Your task to perform on an android device: open app "Firefox Browser" Image 0: 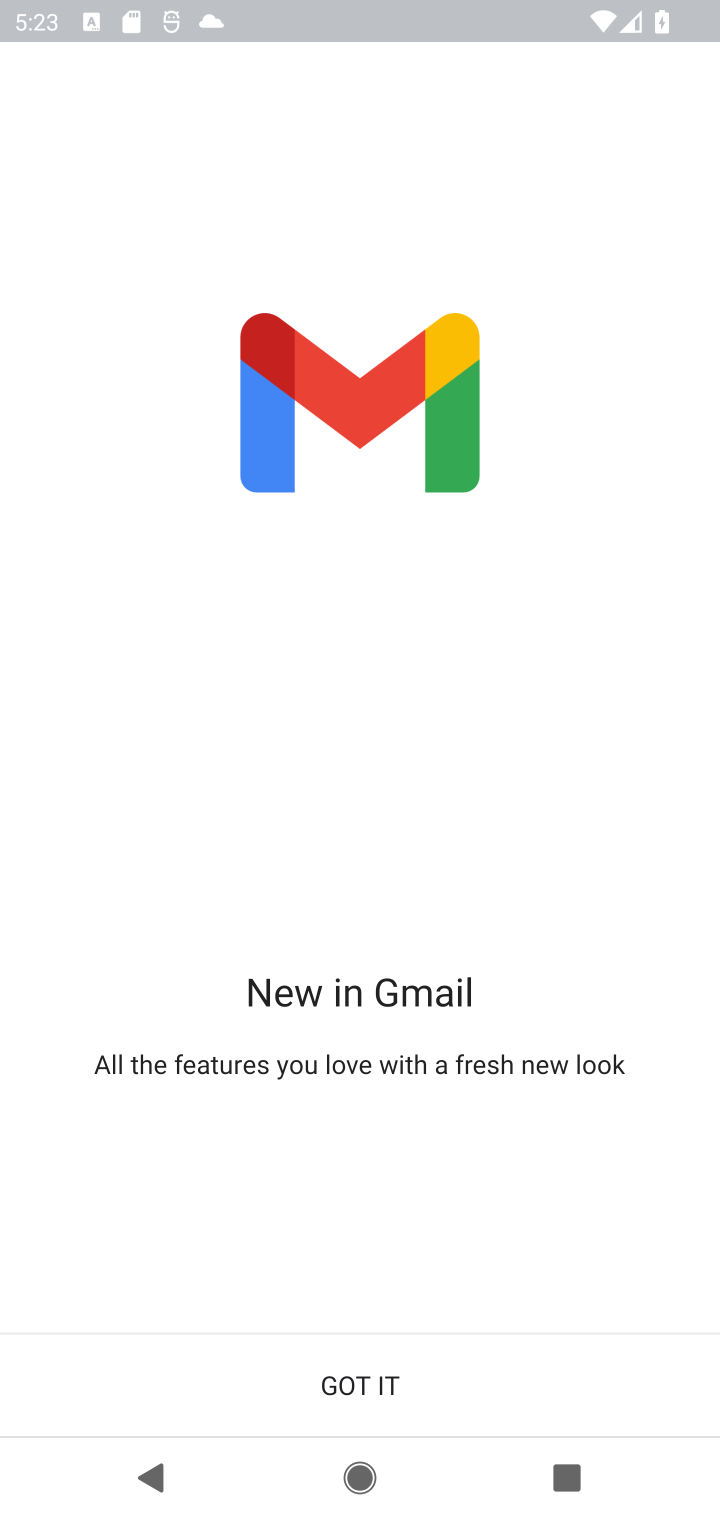
Step 0: press home button
Your task to perform on an android device: open app "Firefox Browser" Image 1: 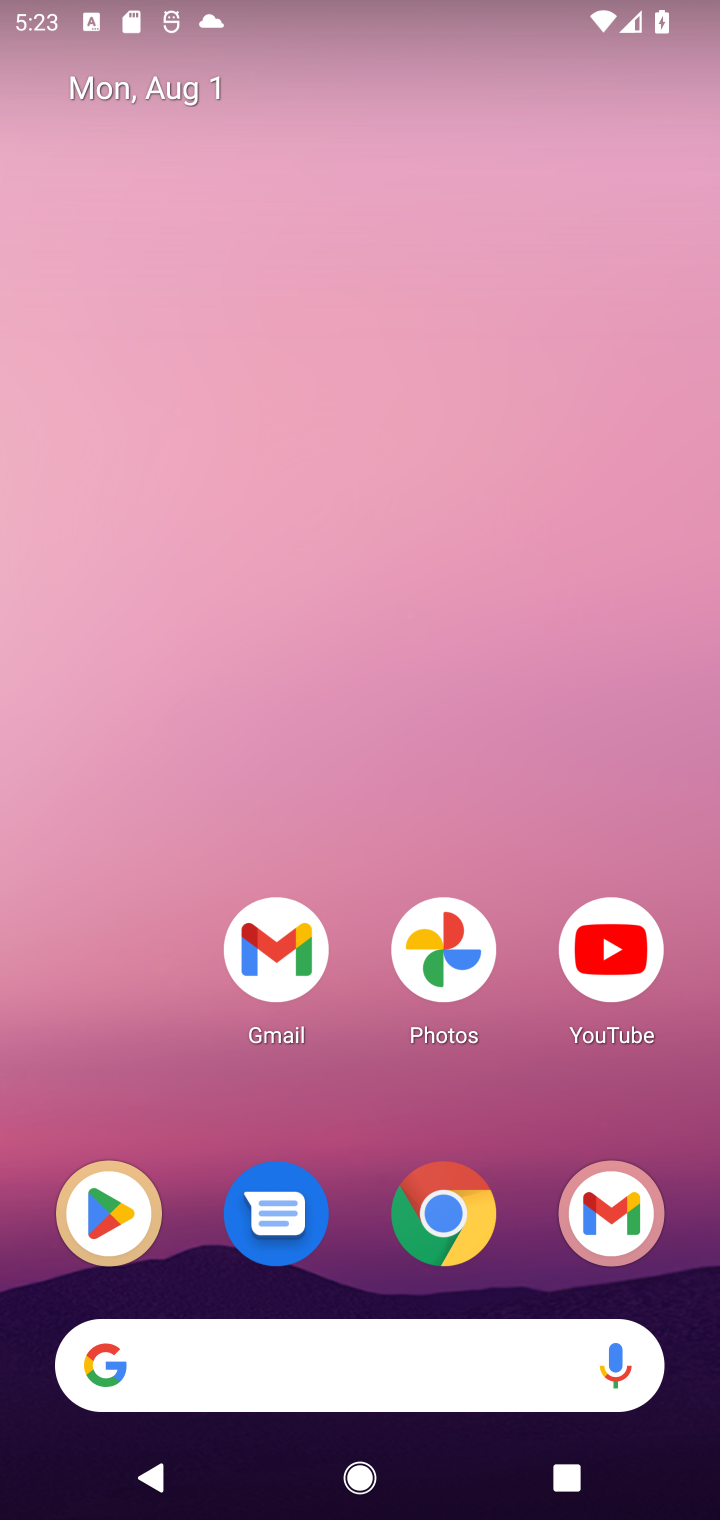
Step 1: drag from (494, 1126) to (543, 81)
Your task to perform on an android device: open app "Firefox Browser" Image 2: 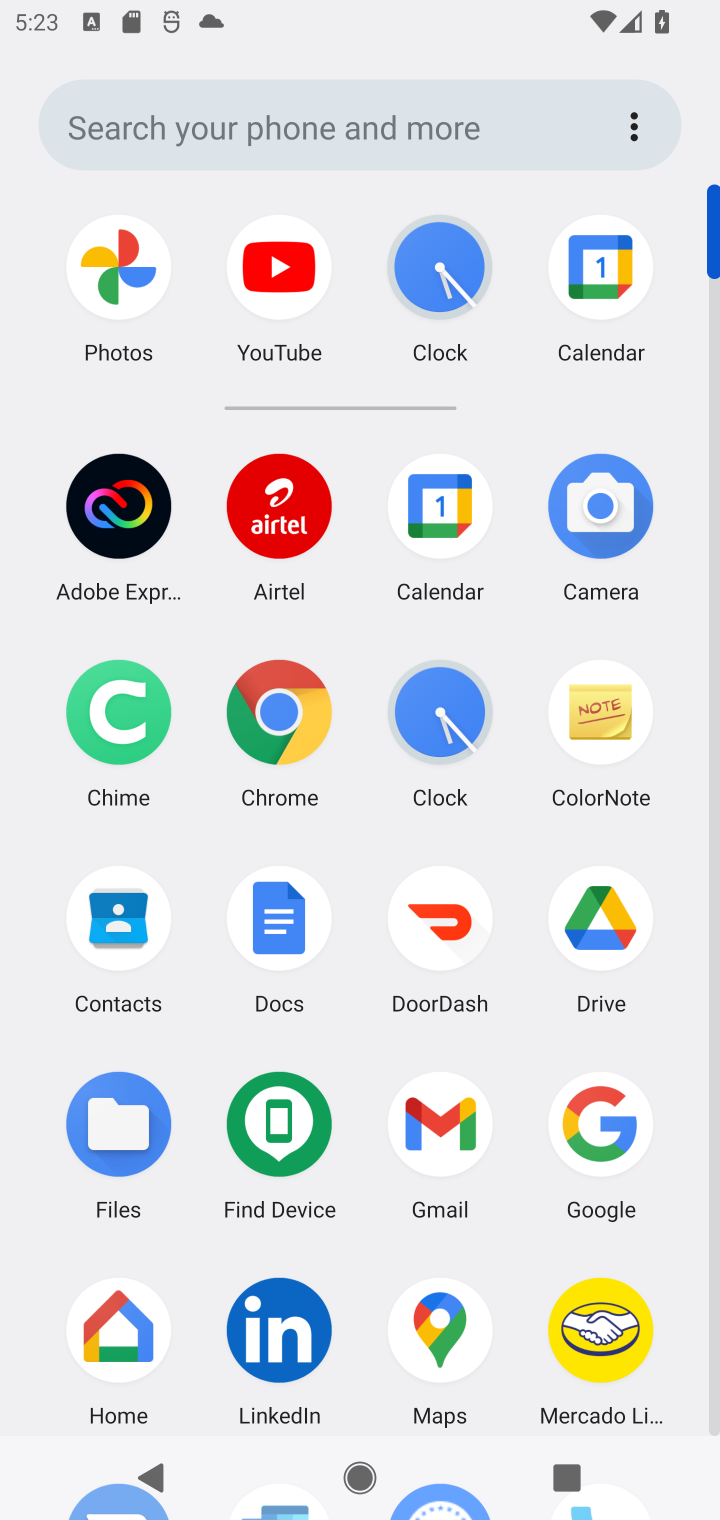
Step 2: drag from (508, 1209) to (510, 398)
Your task to perform on an android device: open app "Firefox Browser" Image 3: 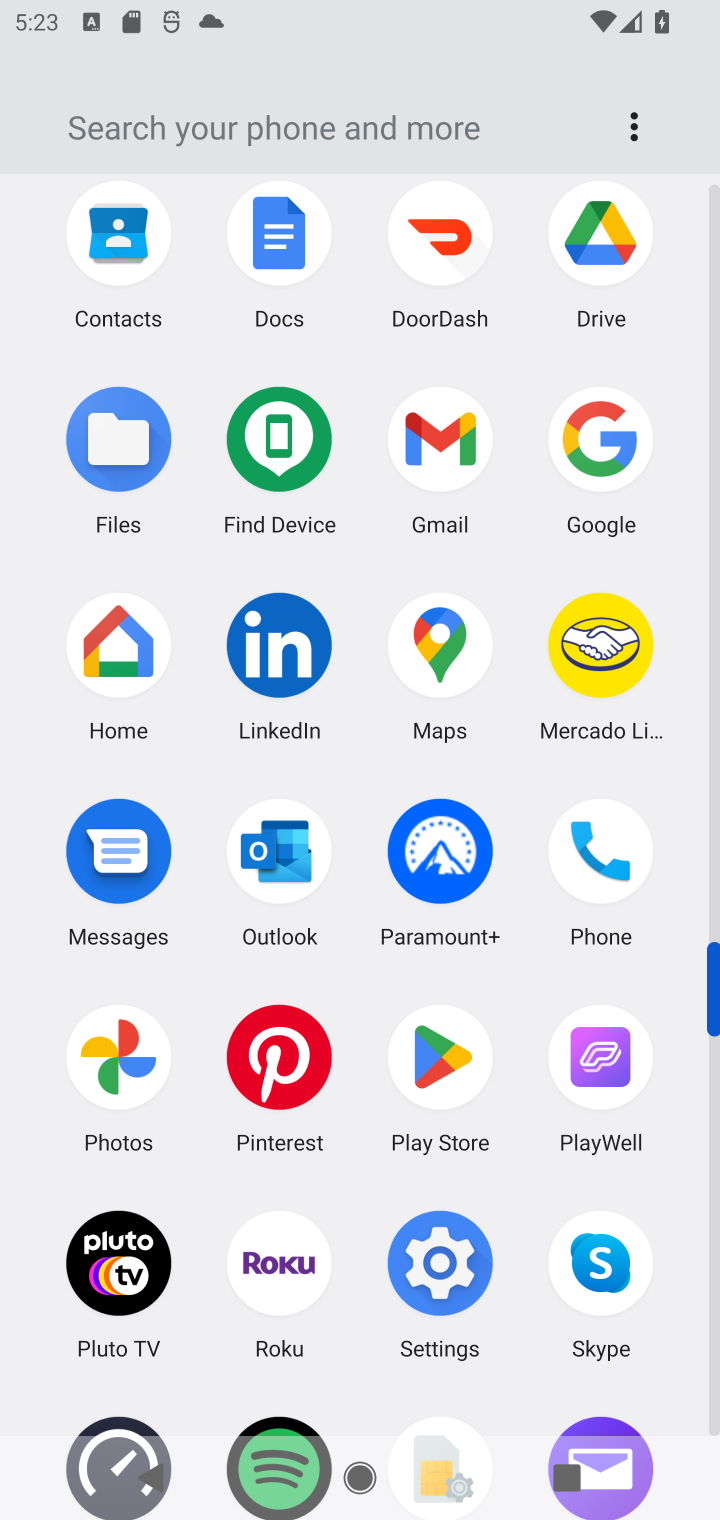
Step 3: click (457, 1084)
Your task to perform on an android device: open app "Firefox Browser" Image 4: 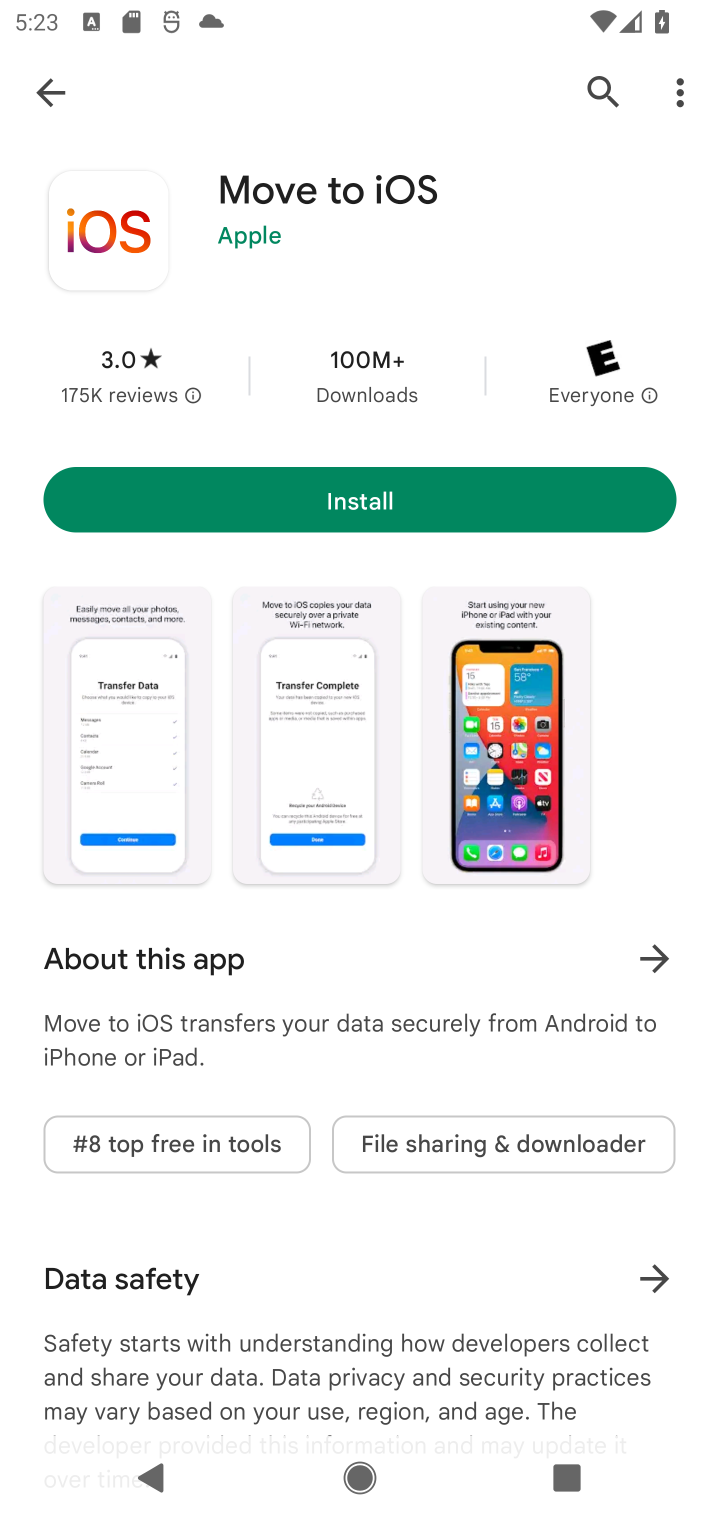
Step 4: click (605, 71)
Your task to perform on an android device: open app "Firefox Browser" Image 5: 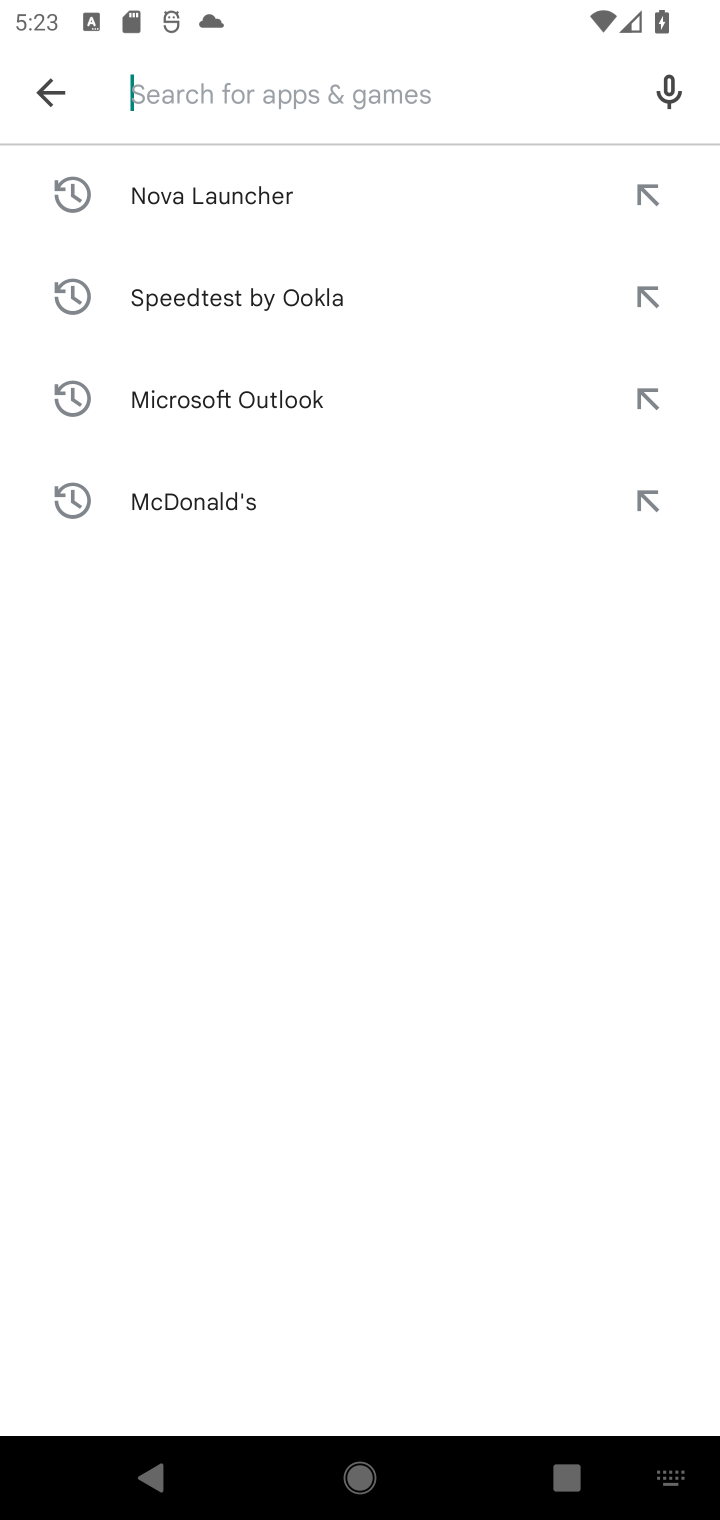
Step 5: type "Firefox Browse"
Your task to perform on an android device: open app "Firefox Browser" Image 6: 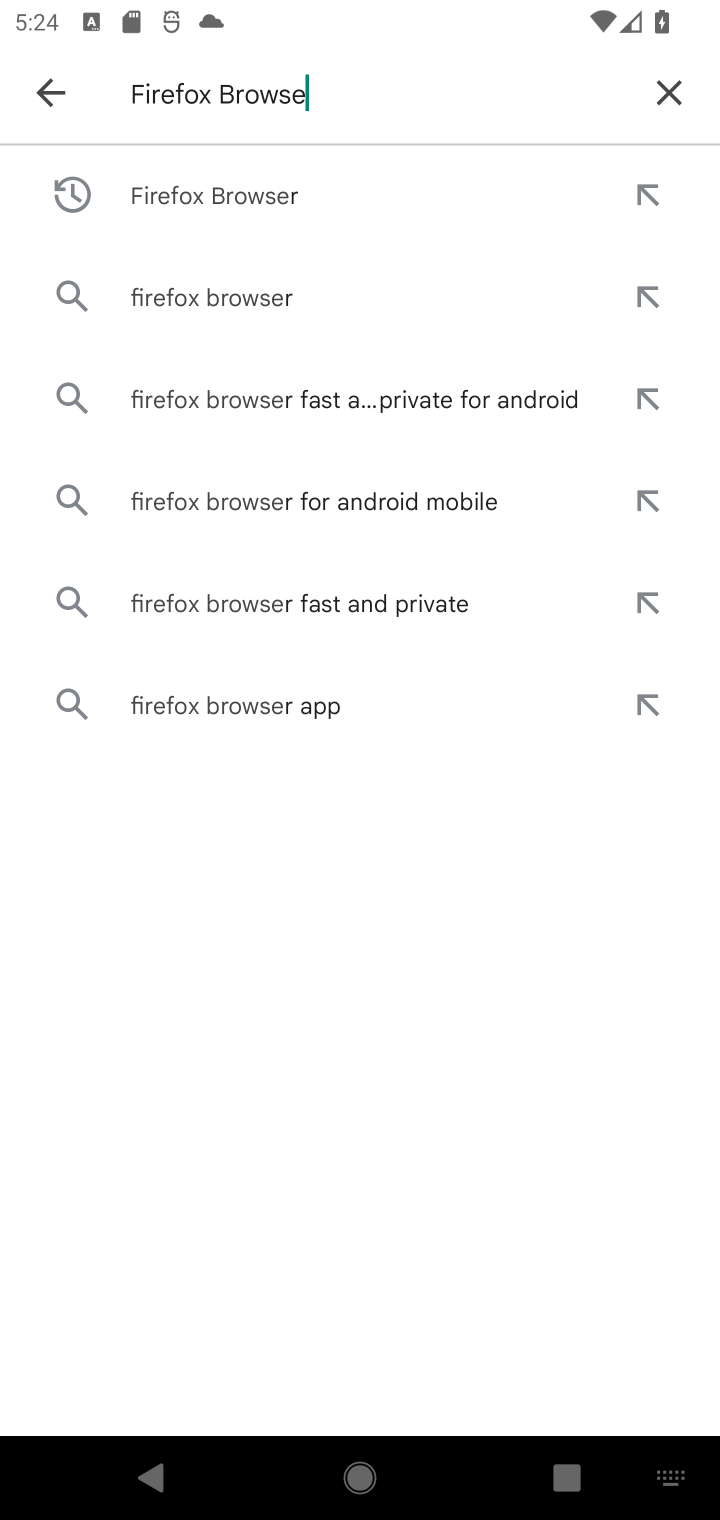
Step 6: type "r"
Your task to perform on an android device: open app "Firefox Browser" Image 7: 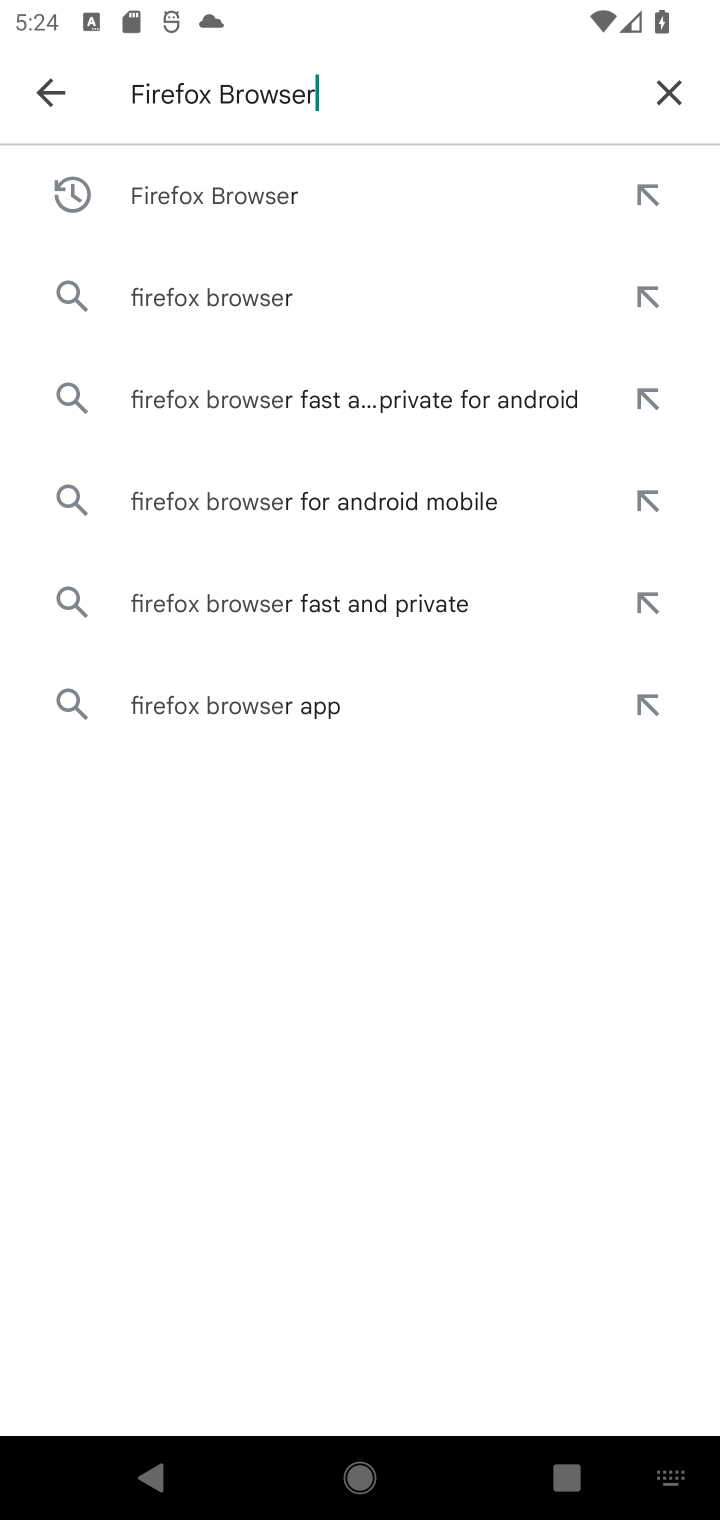
Step 7: press enter
Your task to perform on an android device: open app "Firefox Browser" Image 8: 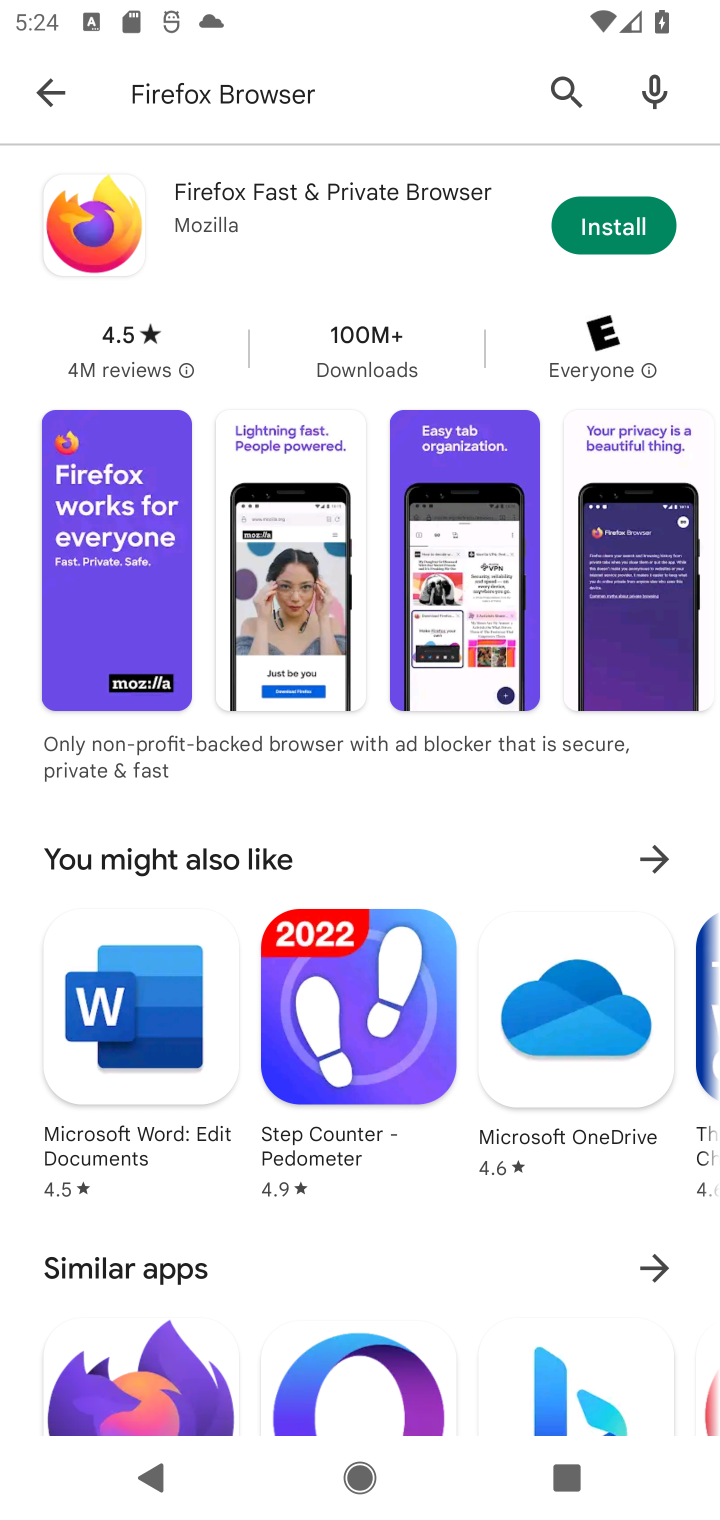
Step 8: click (230, 184)
Your task to perform on an android device: open app "Firefox Browser" Image 9: 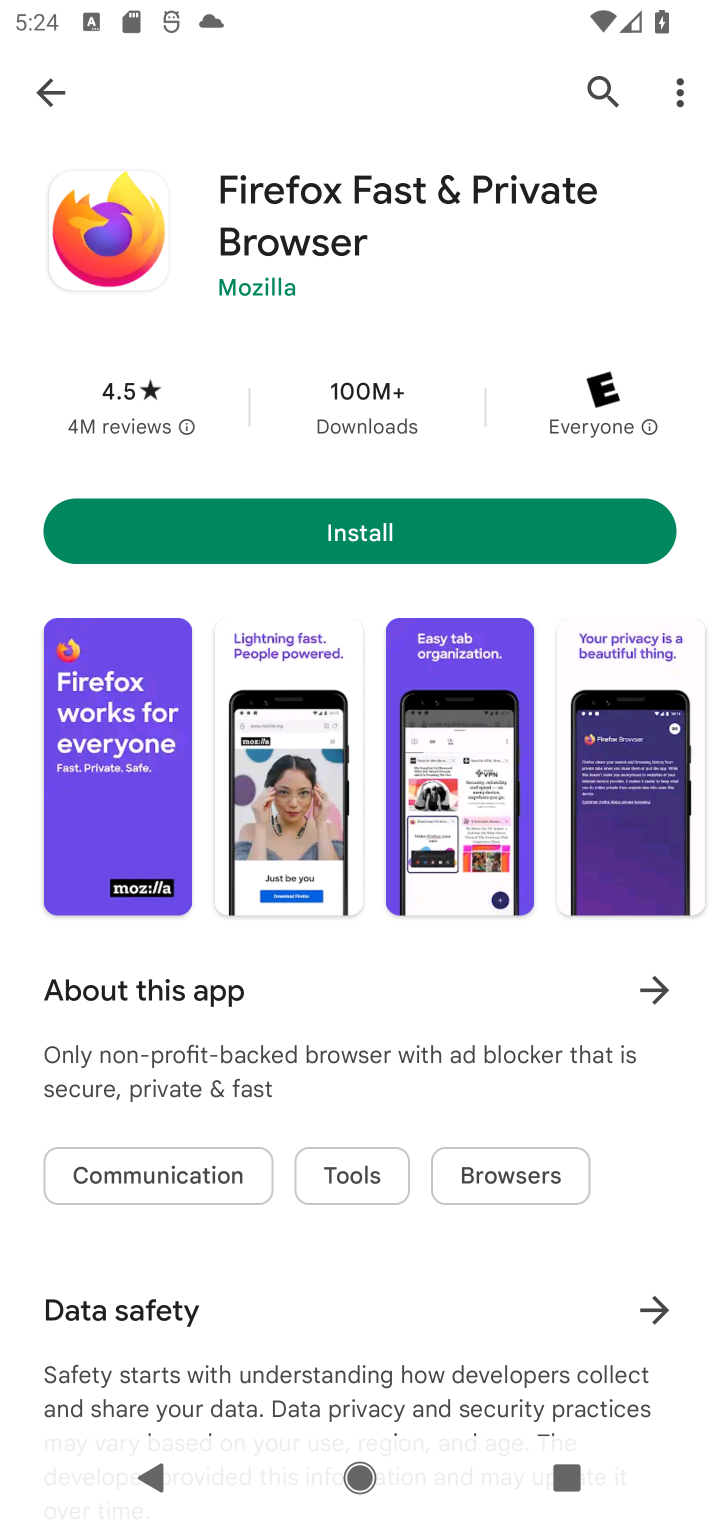
Step 9: task complete